Your task to perform on an android device: Go to network settings Image 0: 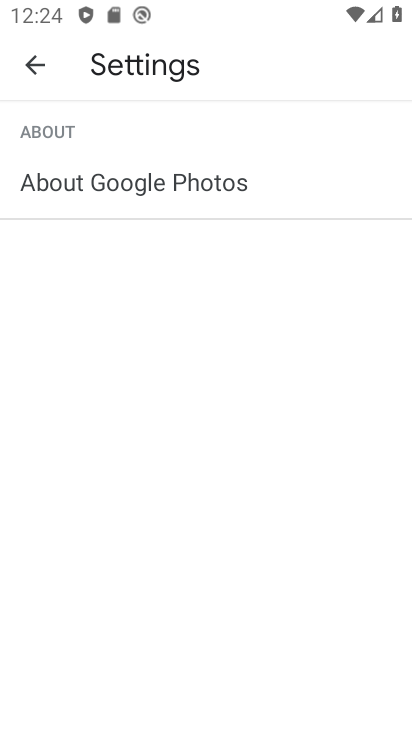
Step 0: press home button
Your task to perform on an android device: Go to network settings Image 1: 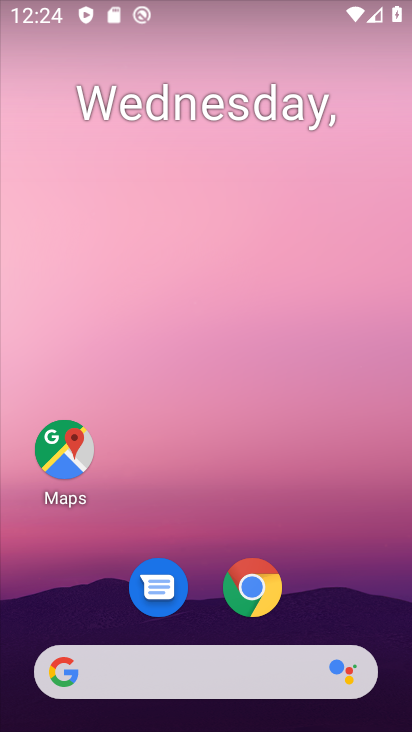
Step 1: drag from (305, 609) to (365, 148)
Your task to perform on an android device: Go to network settings Image 2: 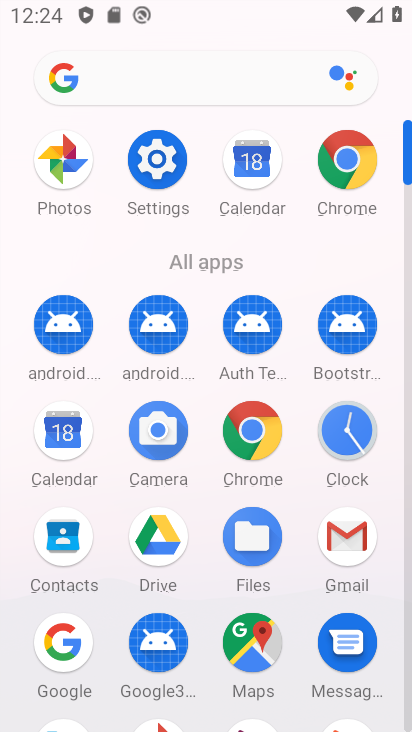
Step 2: click (291, 272)
Your task to perform on an android device: Go to network settings Image 3: 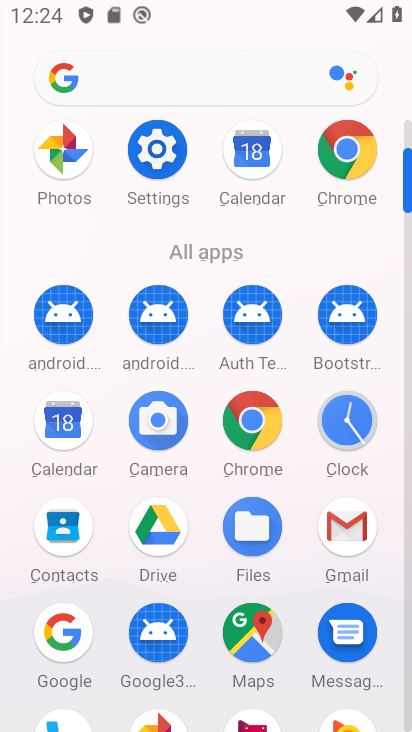
Step 3: drag from (278, 595) to (277, 302)
Your task to perform on an android device: Go to network settings Image 4: 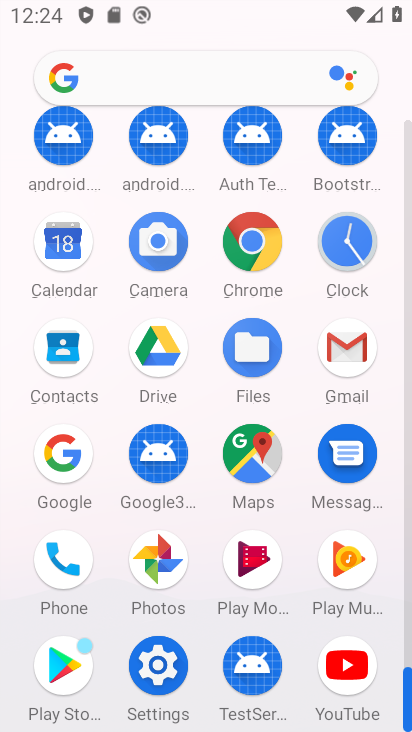
Step 4: click (154, 665)
Your task to perform on an android device: Go to network settings Image 5: 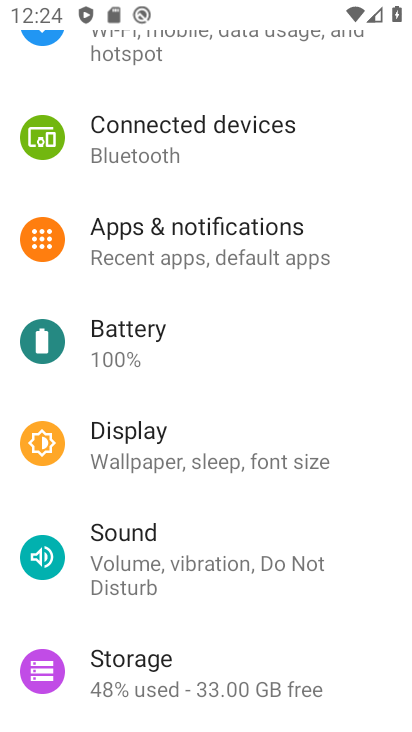
Step 5: click (139, 41)
Your task to perform on an android device: Go to network settings Image 6: 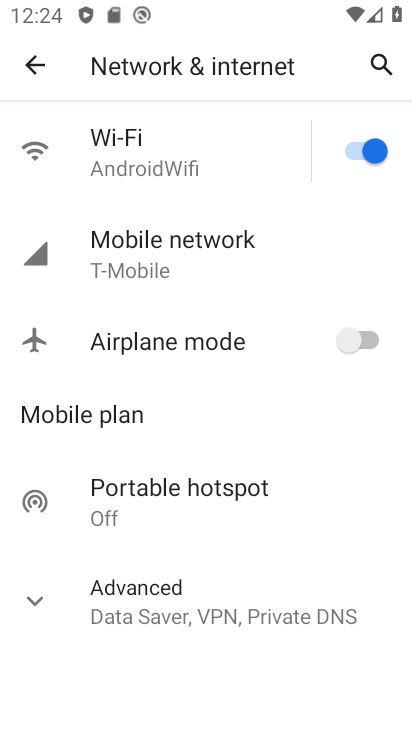
Step 6: task complete